Your task to perform on an android device: Open Chrome and go to the settings page Image 0: 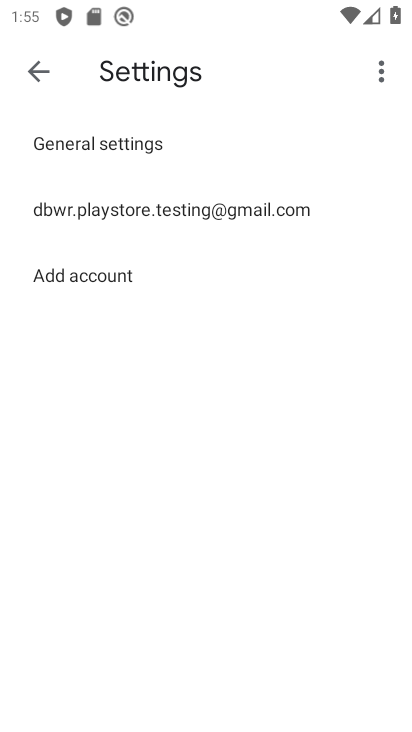
Step 0: press home button
Your task to perform on an android device: Open Chrome and go to the settings page Image 1: 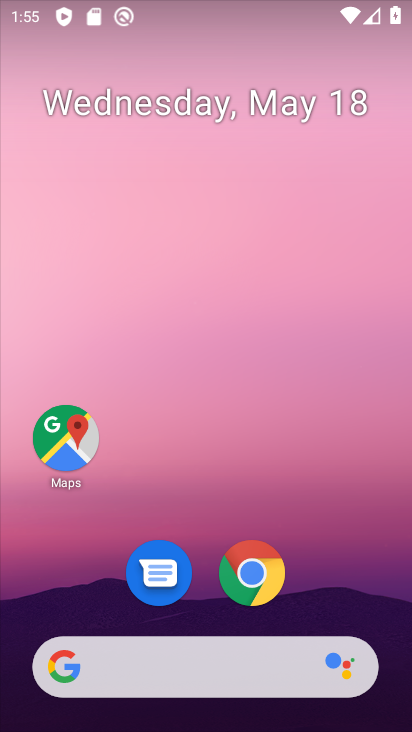
Step 1: click (264, 583)
Your task to perform on an android device: Open Chrome and go to the settings page Image 2: 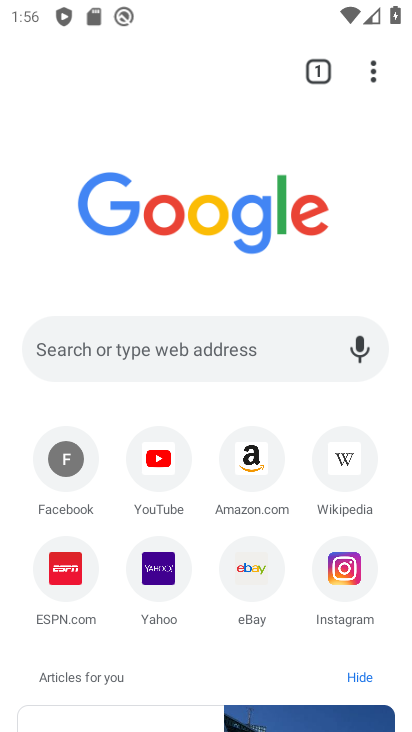
Step 2: task complete